Your task to perform on an android device: change the clock style Image 0: 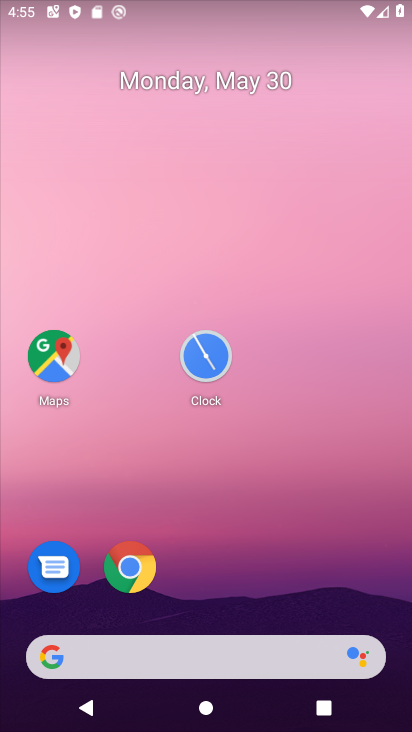
Step 0: drag from (240, 622) to (204, 729)
Your task to perform on an android device: change the clock style Image 1: 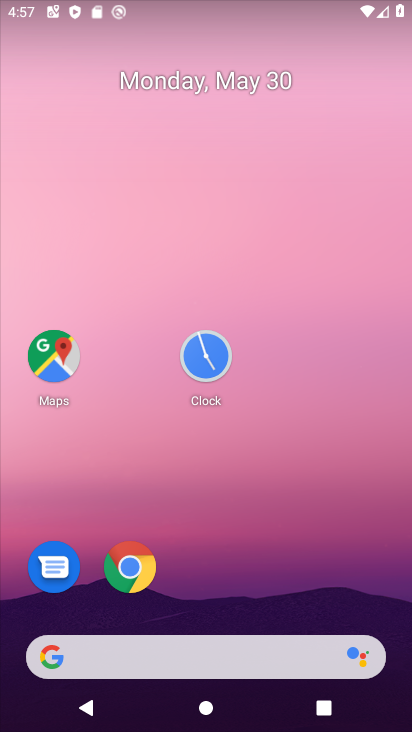
Step 1: click (215, 363)
Your task to perform on an android device: change the clock style Image 2: 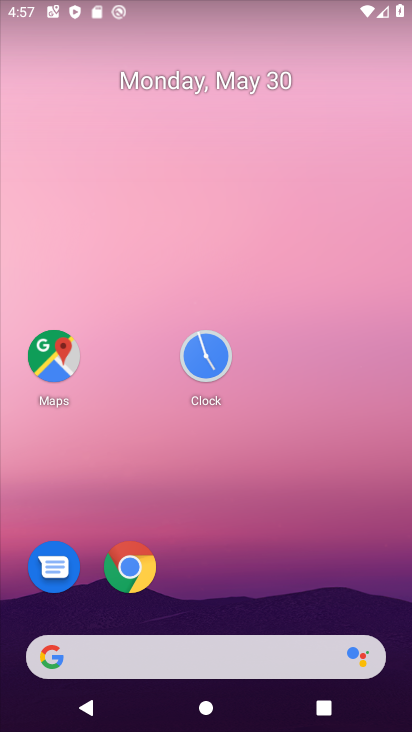
Step 2: click (217, 361)
Your task to perform on an android device: change the clock style Image 3: 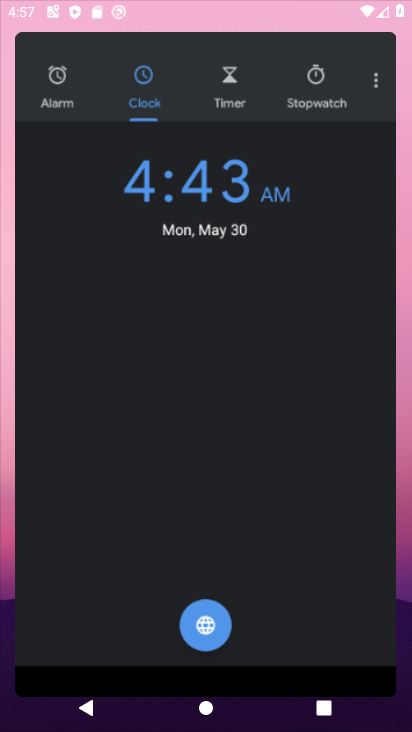
Step 3: click (217, 361)
Your task to perform on an android device: change the clock style Image 4: 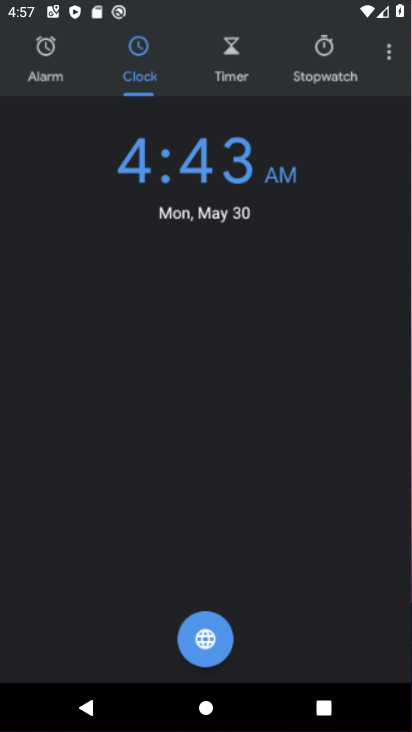
Step 4: click (216, 363)
Your task to perform on an android device: change the clock style Image 5: 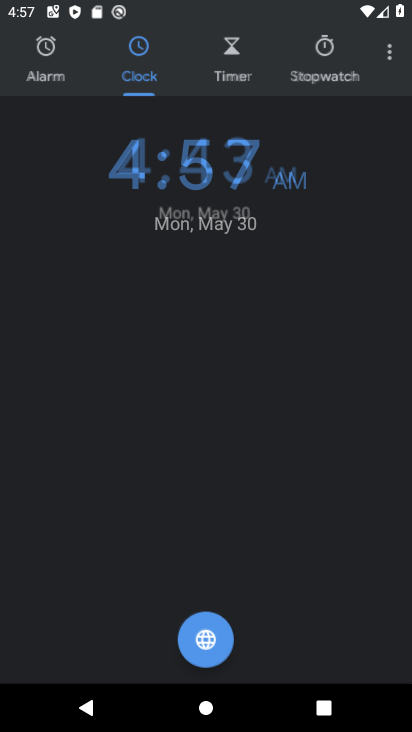
Step 5: click (215, 363)
Your task to perform on an android device: change the clock style Image 6: 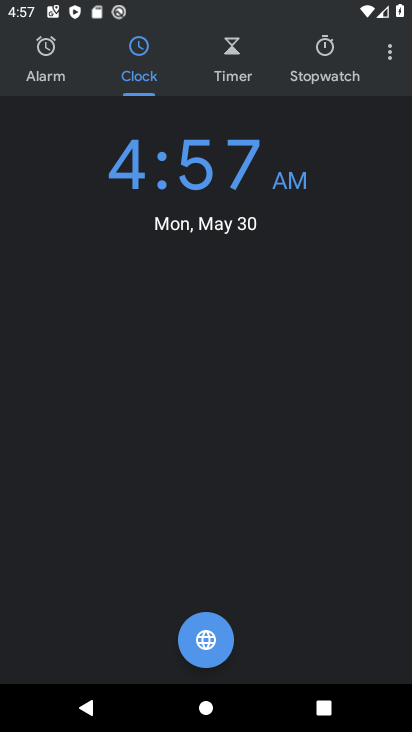
Step 6: click (394, 47)
Your task to perform on an android device: change the clock style Image 7: 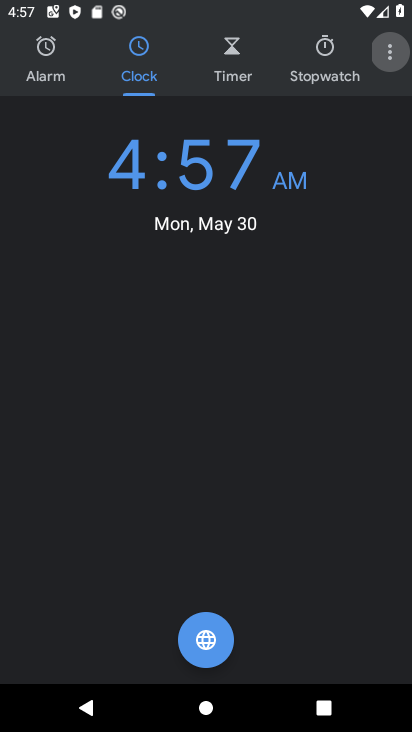
Step 7: click (389, 52)
Your task to perform on an android device: change the clock style Image 8: 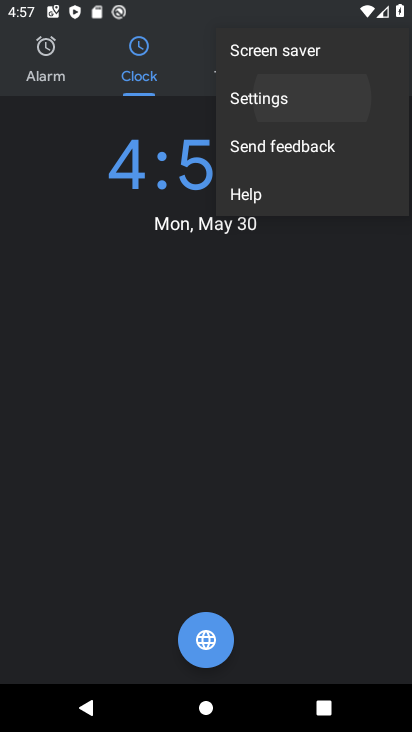
Step 8: click (389, 52)
Your task to perform on an android device: change the clock style Image 9: 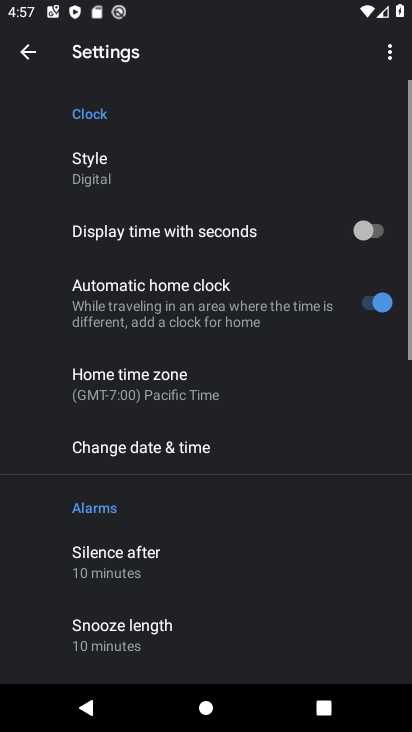
Step 9: click (94, 164)
Your task to perform on an android device: change the clock style Image 10: 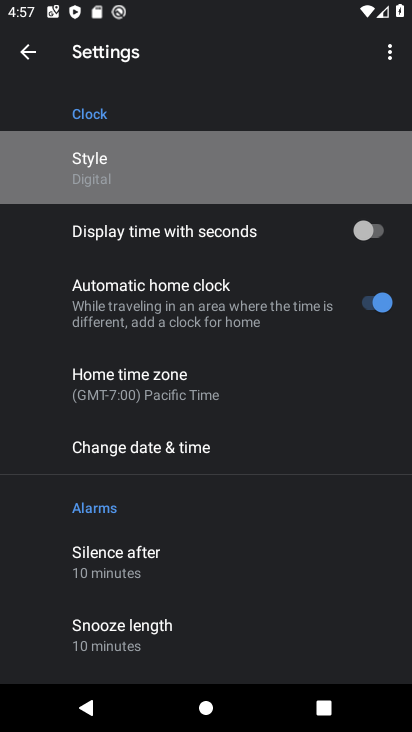
Step 10: click (104, 162)
Your task to perform on an android device: change the clock style Image 11: 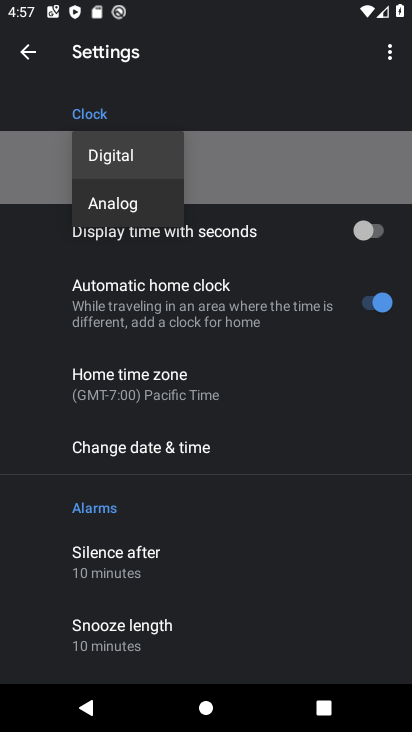
Step 11: click (105, 162)
Your task to perform on an android device: change the clock style Image 12: 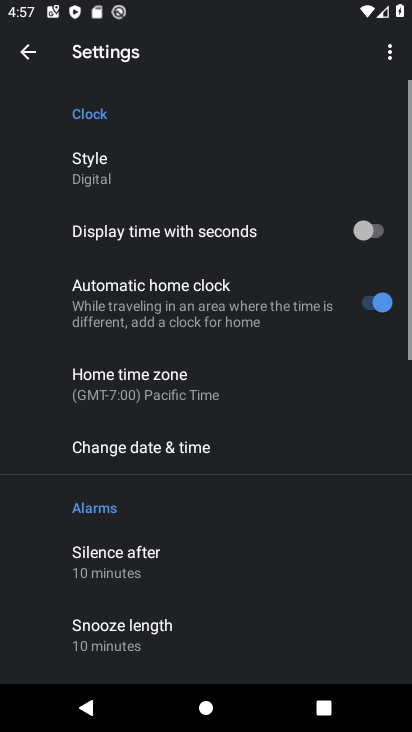
Step 12: click (126, 159)
Your task to perform on an android device: change the clock style Image 13: 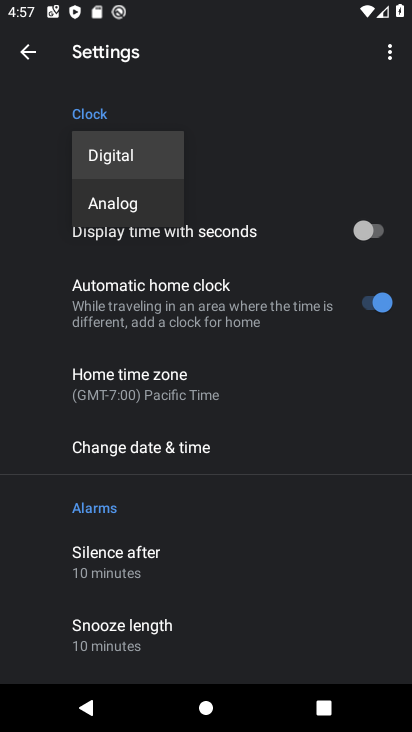
Step 13: click (130, 202)
Your task to perform on an android device: change the clock style Image 14: 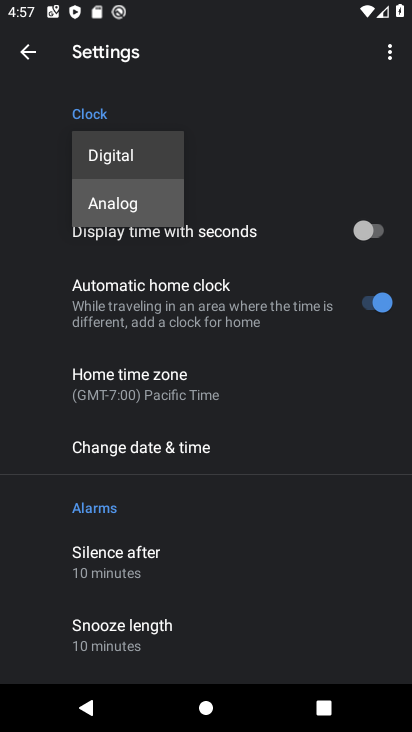
Step 14: click (129, 203)
Your task to perform on an android device: change the clock style Image 15: 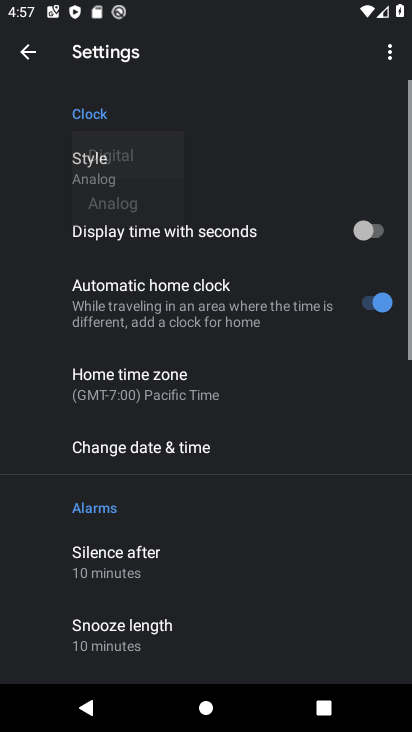
Step 15: click (129, 203)
Your task to perform on an android device: change the clock style Image 16: 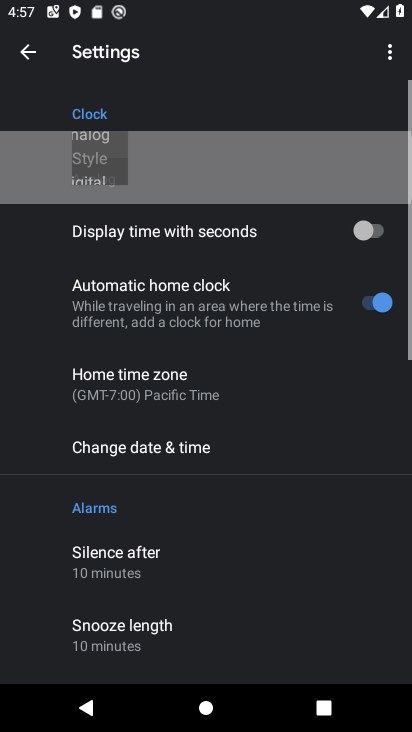
Step 16: click (129, 203)
Your task to perform on an android device: change the clock style Image 17: 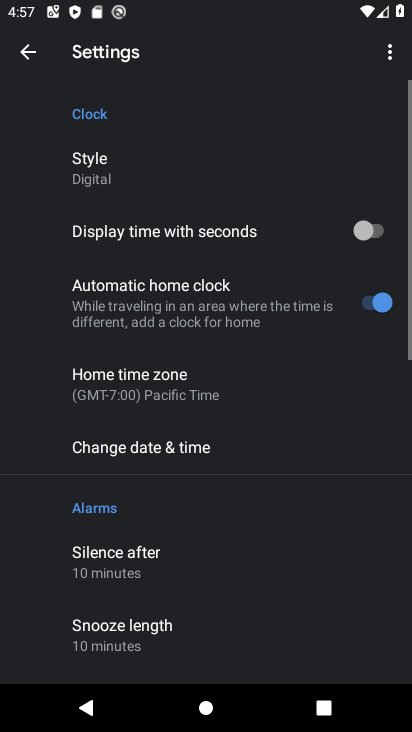
Step 17: task complete